Your task to perform on an android device: Open battery settings Image 0: 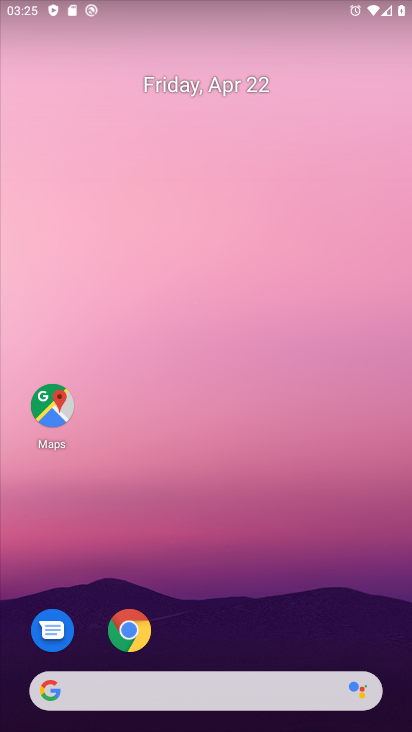
Step 0: drag from (188, 627) to (282, 46)
Your task to perform on an android device: Open battery settings Image 1: 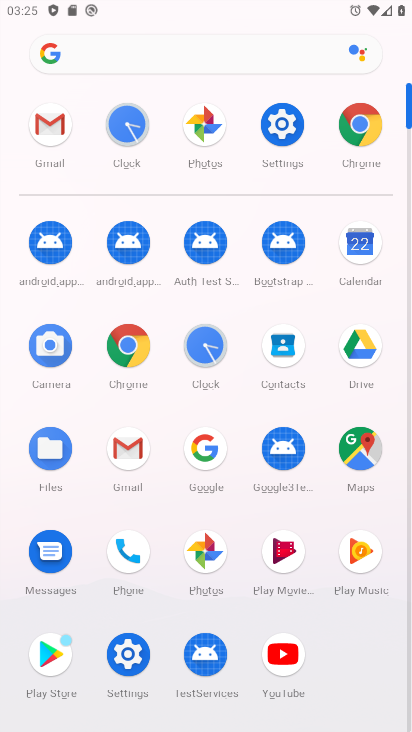
Step 1: click (128, 655)
Your task to perform on an android device: Open battery settings Image 2: 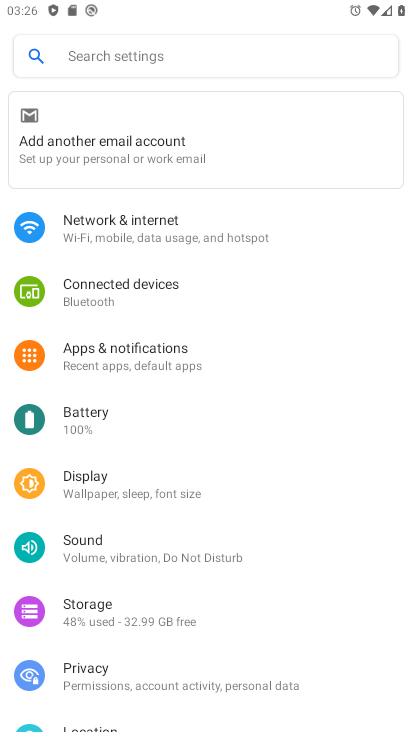
Step 2: click (119, 430)
Your task to perform on an android device: Open battery settings Image 3: 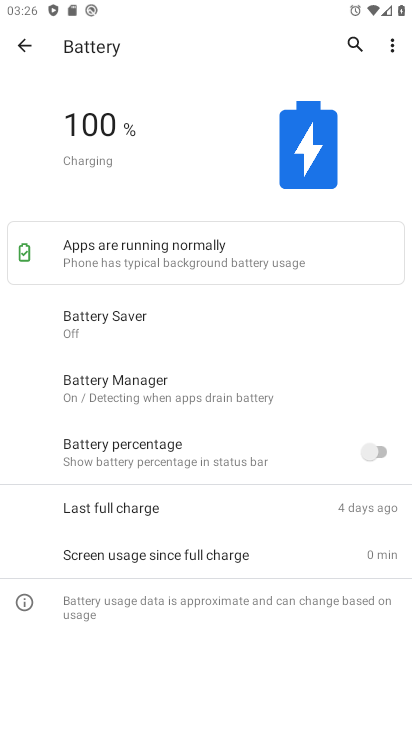
Step 3: task complete